Your task to perform on an android device: turn off location Image 0: 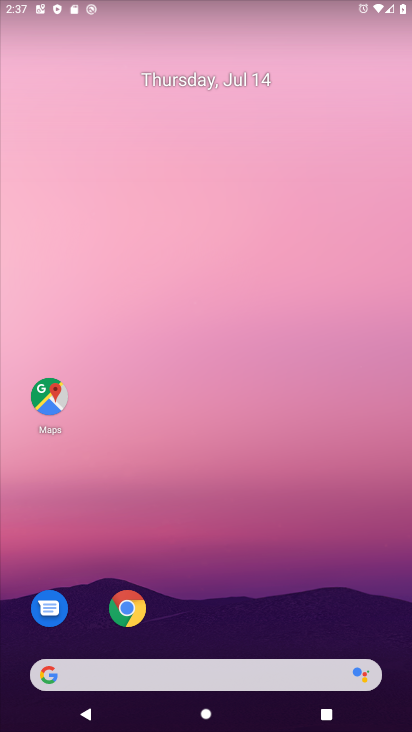
Step 0: drag from (237, 720) to (235, 132)
Your task to perform on an android device: turn off location Image 1: 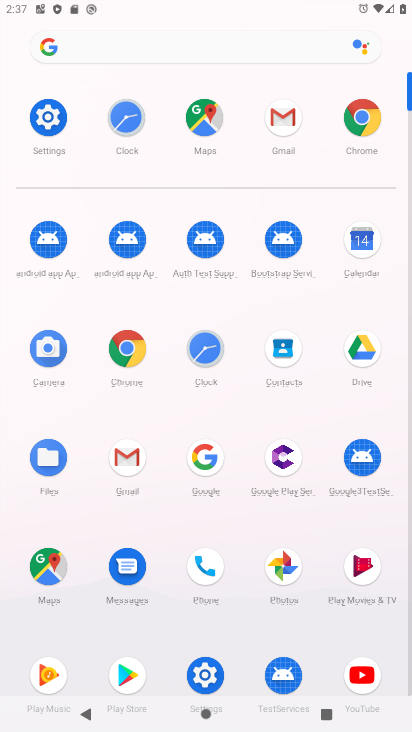
Step 1: click (39, 118)
Your task to perform on an android device: turn off location Image 2: 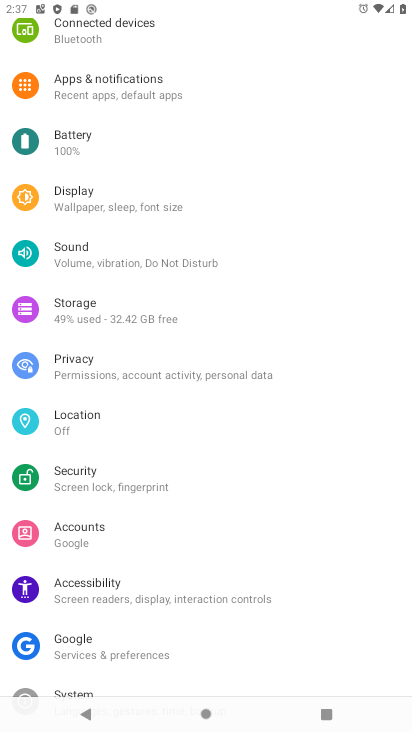
Step 2: click (72, 419)
Your task to perform on an android device: turn off location Image 3: 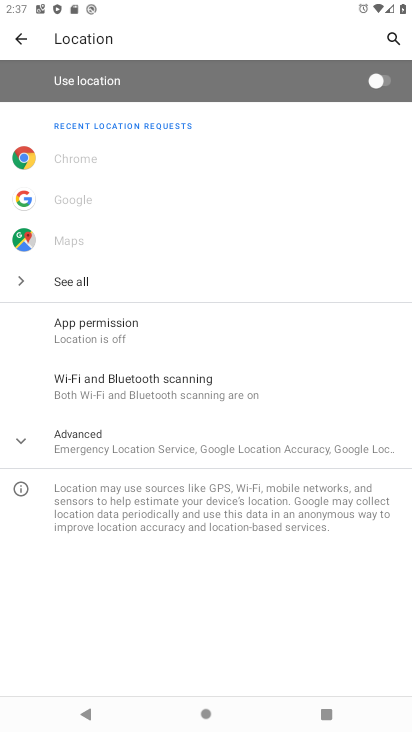
Step 3: task complete